Your task to perform on an android device: Open calendar and show me the first week of next month Image 0: 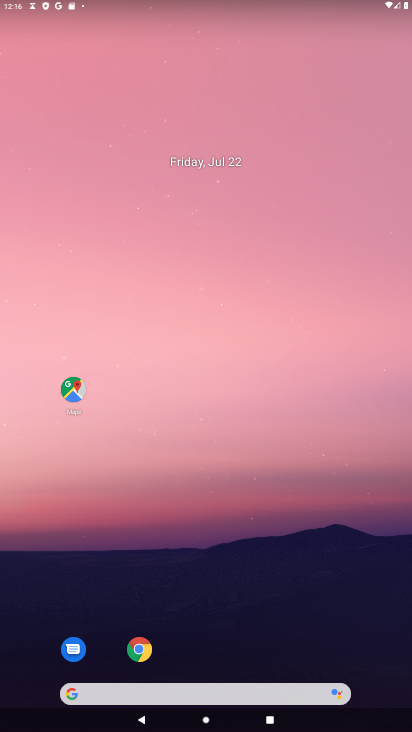
Step 0: drag from (349, 640) to (237, 324)
Your task to perform on an android device: Open calendar and show me the first week of next month Image 1: 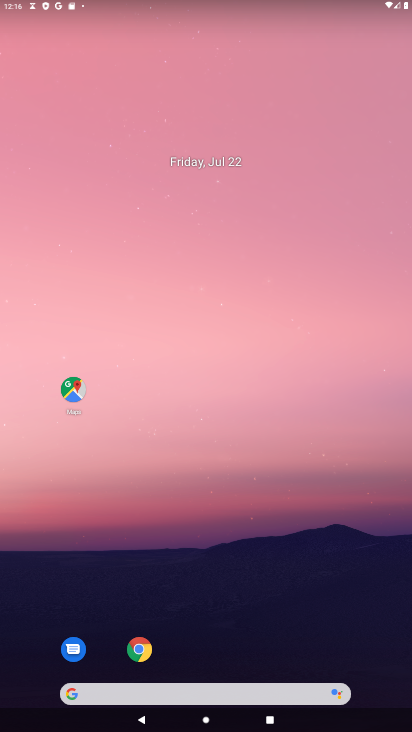
Step 1: drag from (340, 655) to (305, 130)
Your task to perform on an android device: Open calendar and show me the first week of next month Image 2: 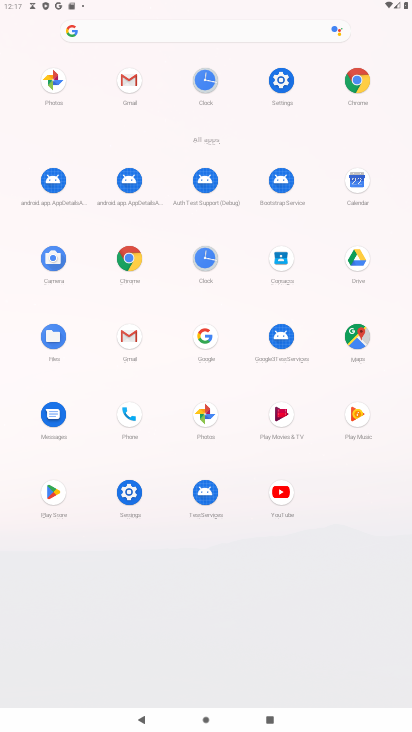
Step 2: click (356, 183)
Your task to perform on an android device: Open calendar and show me the first week of next month Image 3: 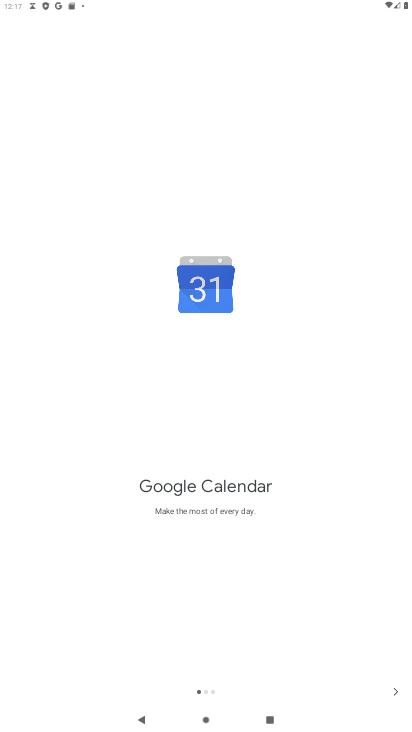
Step 3: click (392, 691)
Your task to perform on an android device: Open calendar and show me the first week of next month Image 4: 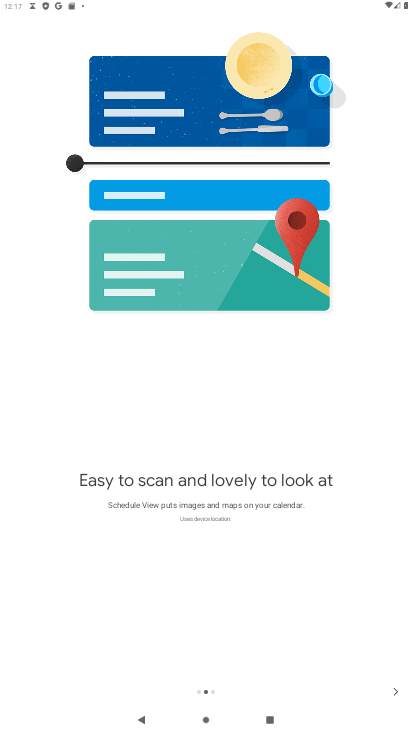
Step 4: click (392, 691)
Your task to perform on an android device: Open calendar and show me the first week of next month Image 5: 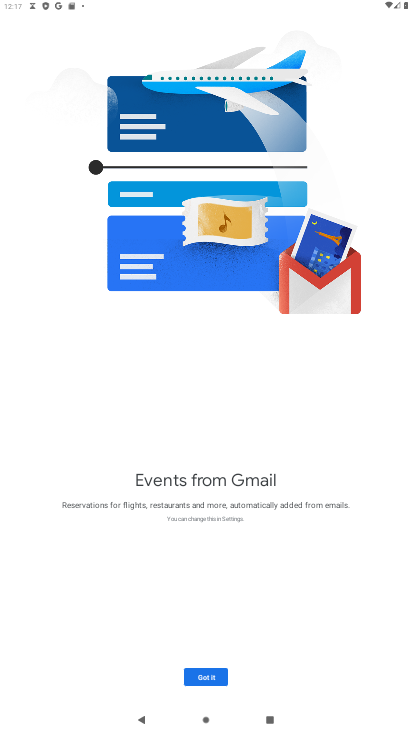
Step 5: click (209, 679)
Your task to perform on an android device: Open calendar and show me the first week of next month Image 6: 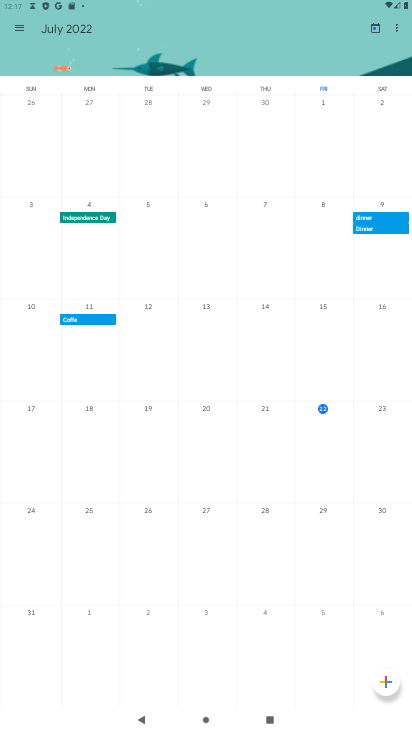
Step 6: click (18, 36)
Your task to perform on an android device: Open calendar and show me the first week of next month Image 7: 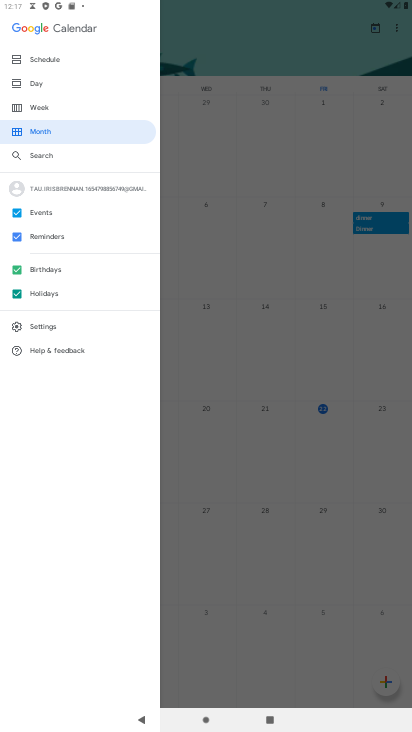
Step 7: click (52, 100)
Your task to perform on an android device: Open calendar and show me the first week of next month Image 8: 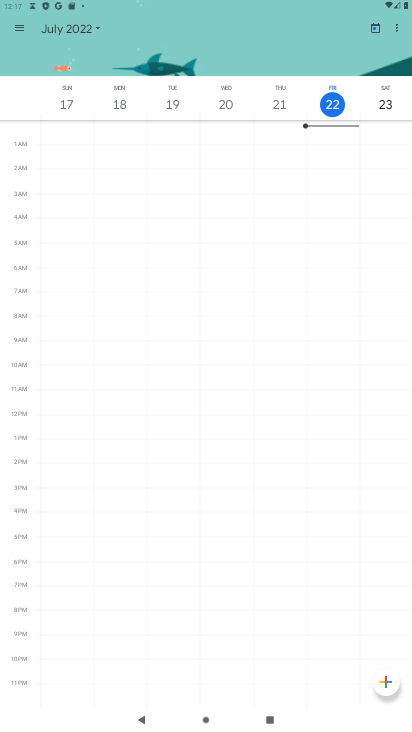
Step 8: click (85, 30)
Your task to perform on an android device: Open calendar and show me the first week of next month Image 9: 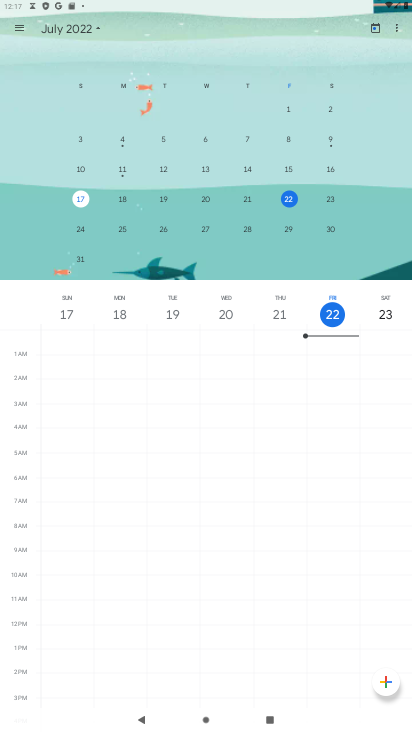
Step 9: drag from (304, 189) to (61, 190)
Your task to perform on an android device: Open calendar and show me the first week of next month Image 10: 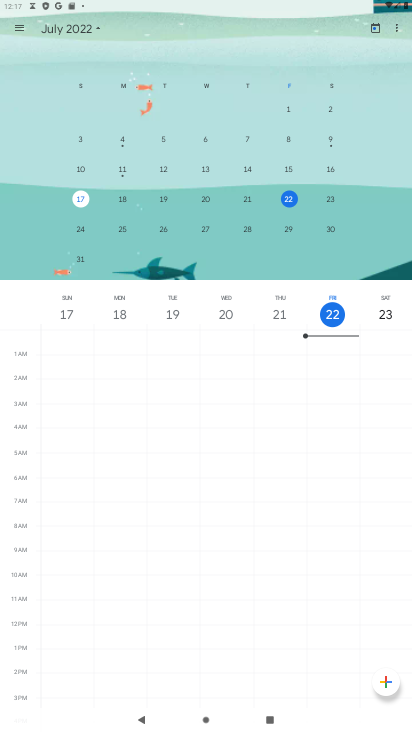
Step 10: click (206, 142)
Your task to perform on an android device: Open calendar and show me the first week of next month Image 11: 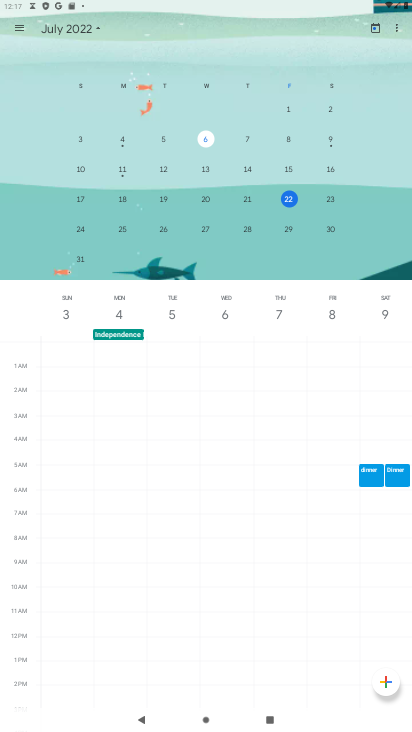
Step 11: task complete